Your task to perform on an android device: toggle translation in the chrome app Image 0: 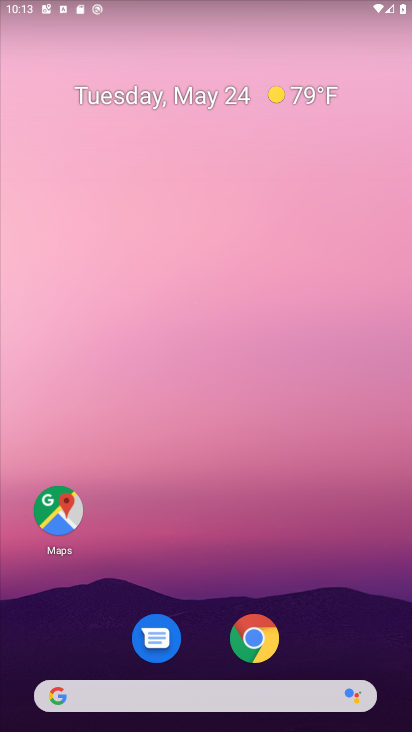
Step 0: click (251, 644)
Your task to perform on an android device: toggle translation in the chrome app Image 1: 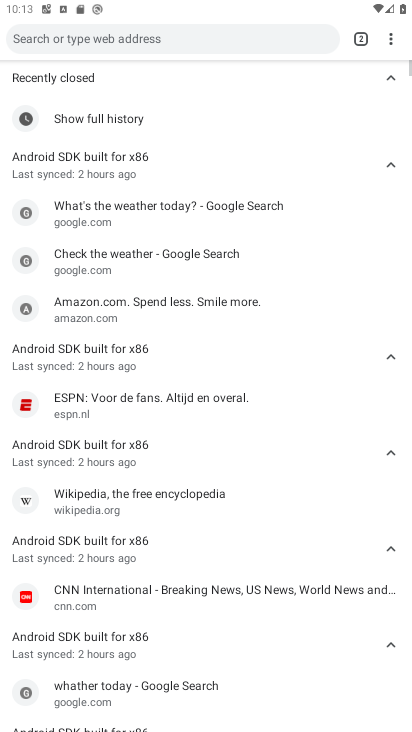
Step 1: click (391, 38)
Your task to perform on an android device: toggle translation in the chrome app Image 2: 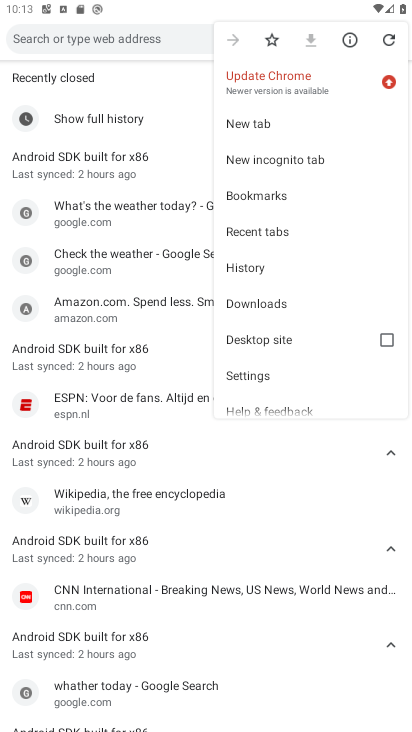
Step 2: click (295, 370)
Your task to perform on an android device: toggle translation in the chrome app Image 3: 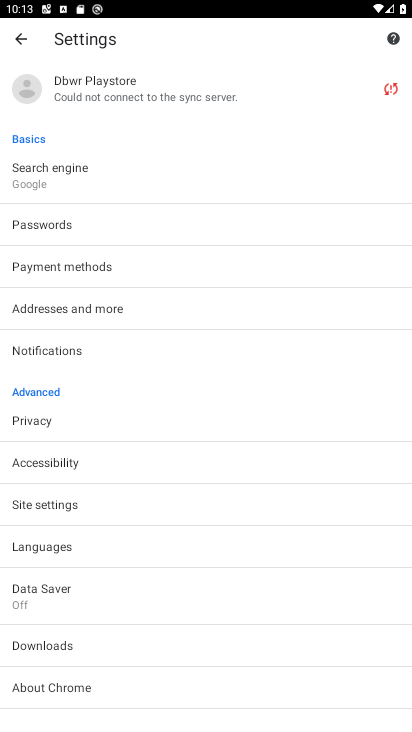
Step 3: click (83, 538)
Your task to perform on an android device: toggle translation in the chrome app Image 4: 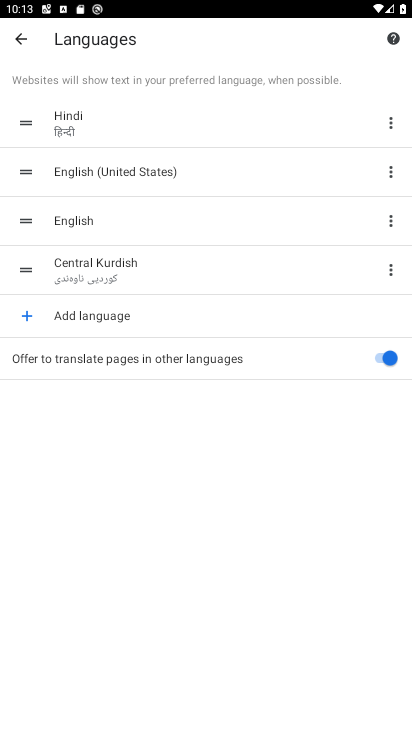
Step 4: click (387, 364)
Your task to perform on an android device: toggle translation in the chrome app Image 5: 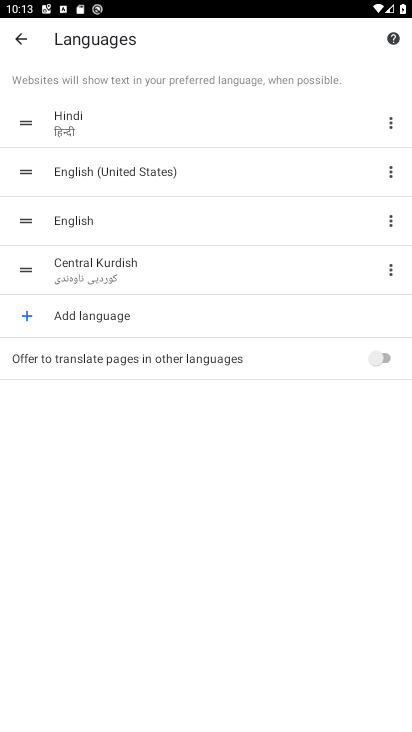
Step 5: task complete